Your task to perform on an android device: open app "Clock" (install if not already installed) Image 0: 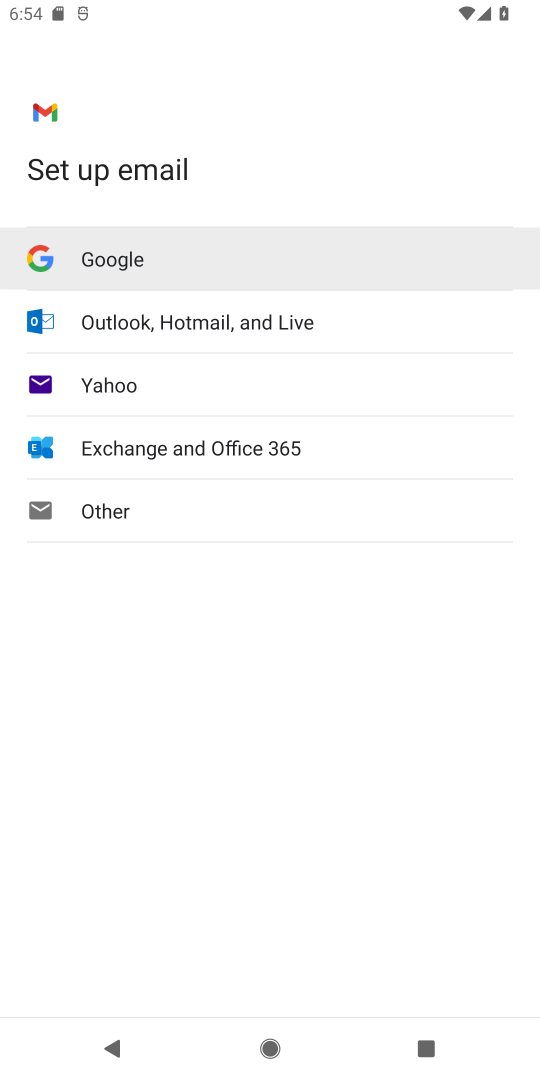
Step 0: press home button
Your task to perform on an android device: open app "Clock" (install if not already installed) Image 1: 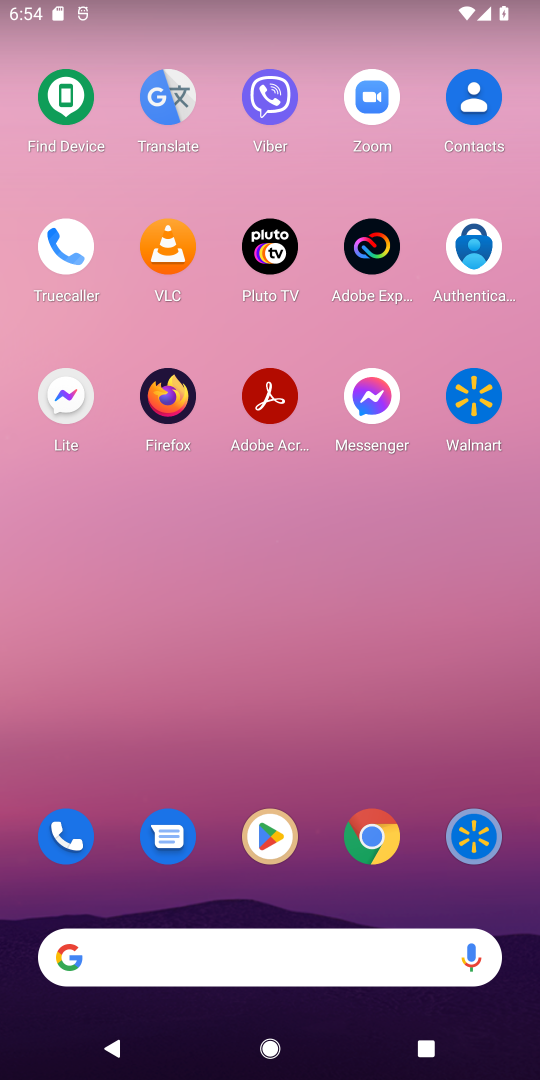
Step 1: press home button
Your task to perform on an android device: open app "Clock" (install if not already installed) Image 2: 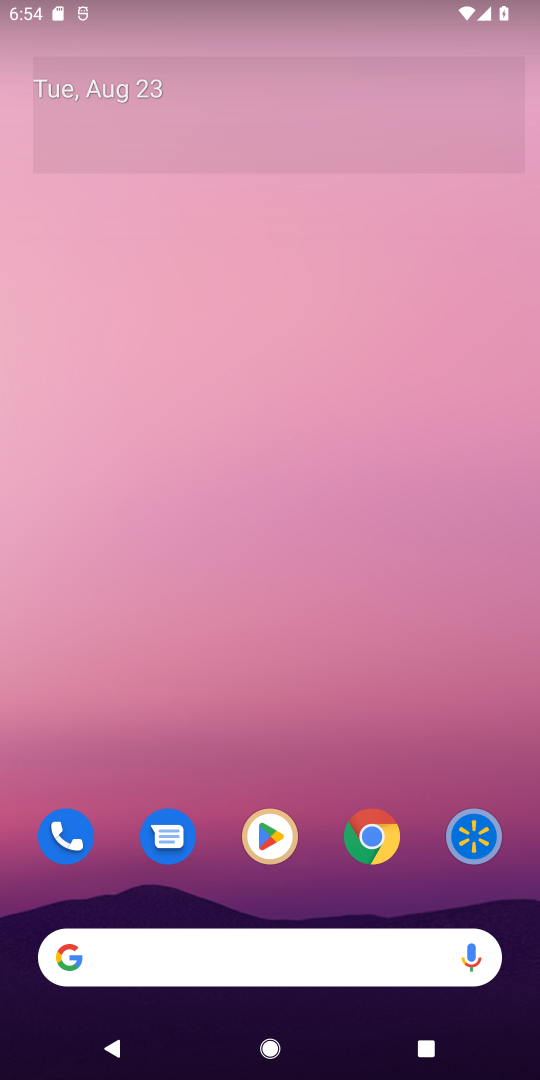
Step 2: click (274, 848)
Your task to perform on an android device: open app "Clock" (install if not already installed) Image 3: 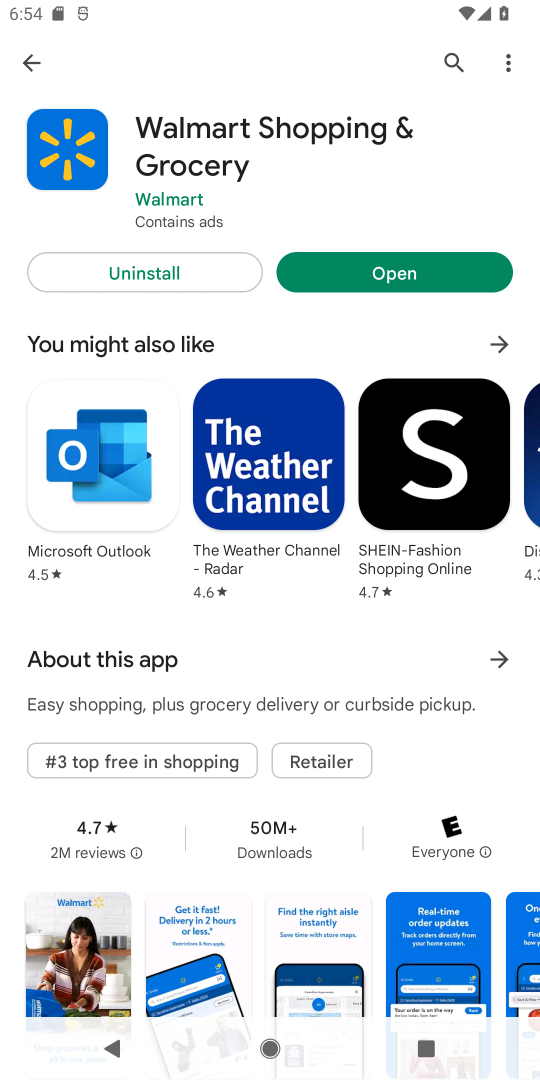
Step 3: click (452, 63)
Your task to perform on an android device: open app "Clock" (install if not already installed) Image 4: 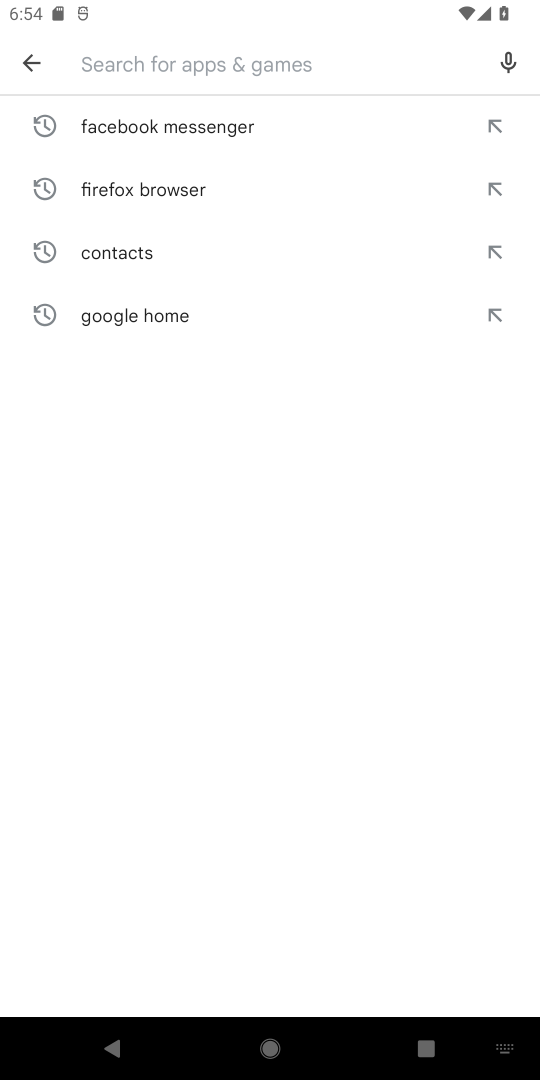
Step 4: type "Clock"
Your task to perform on an android device: open app "Clock" (install if not already installed) Image 5: 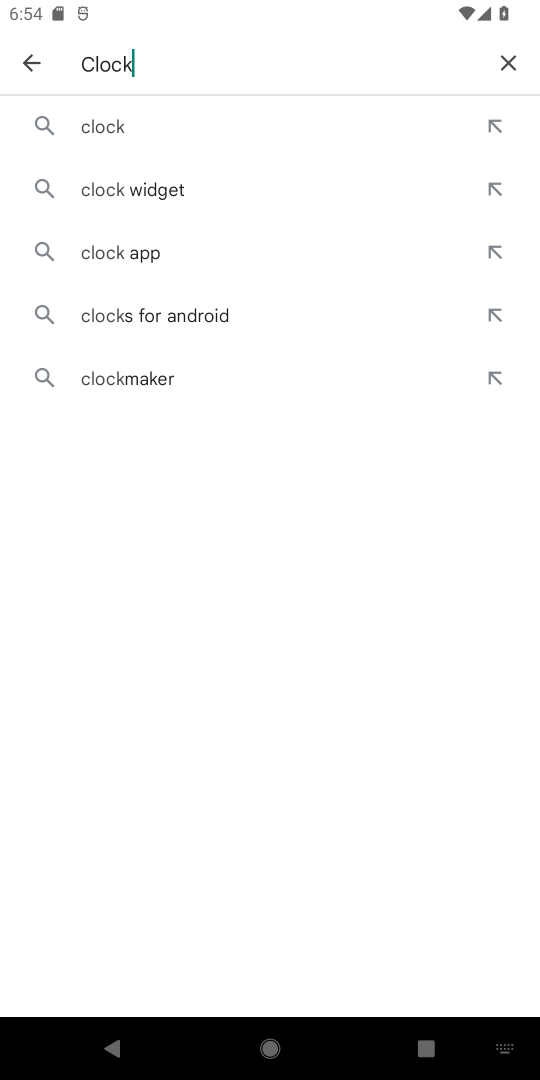
Step 5: click (181, 114)
Your task to perform on an android device: open app "Clock" (install if not already installed) Image 6: 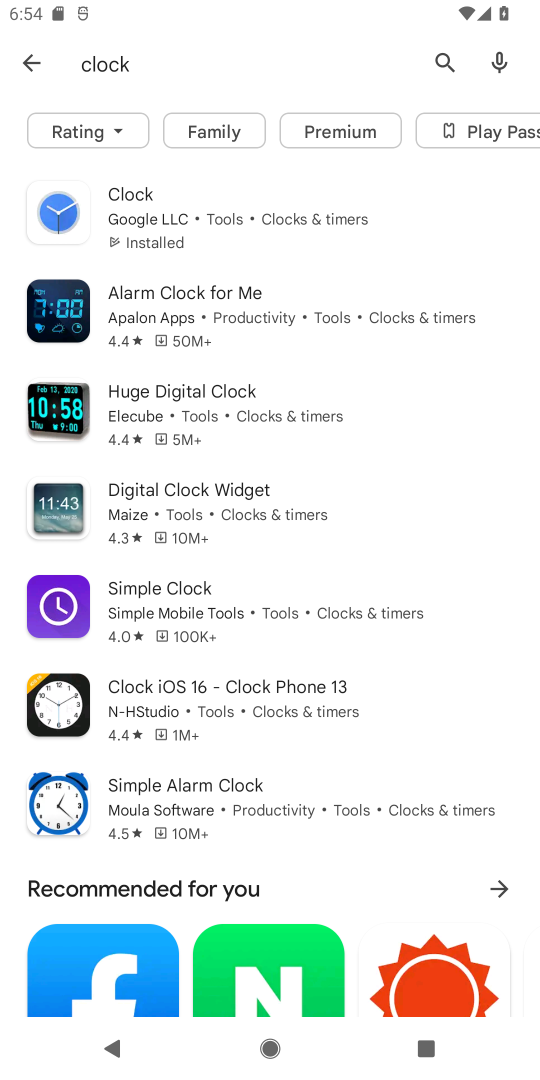
Step 6: click (242, 225)
Your task to perform on an android device: open app "Clock" (install if not already installed) Image 7: 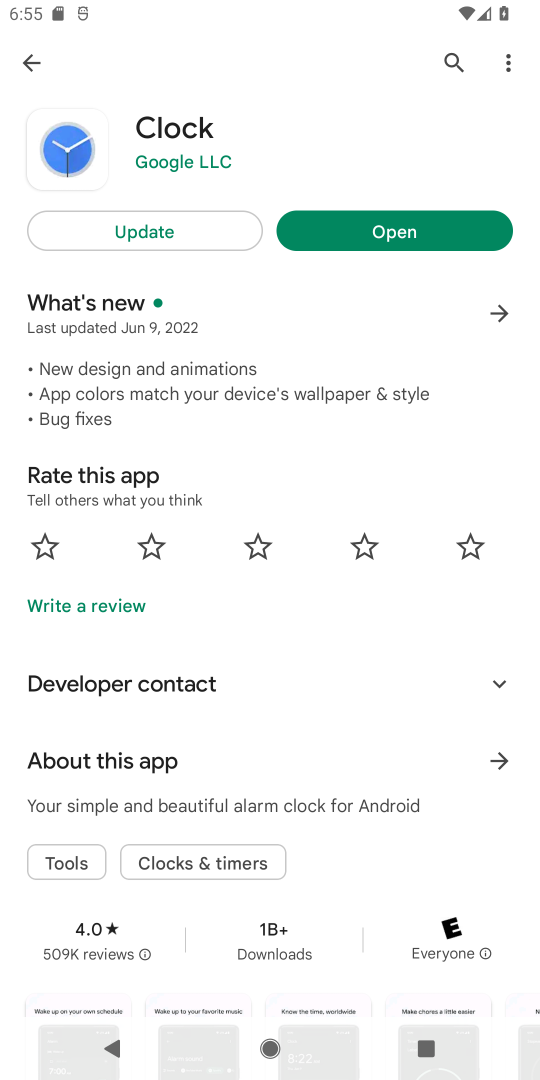
Step 7: click (401, 233)
Your task to perform on an android device: open app "Clock" (install if not already installed) Image 8: 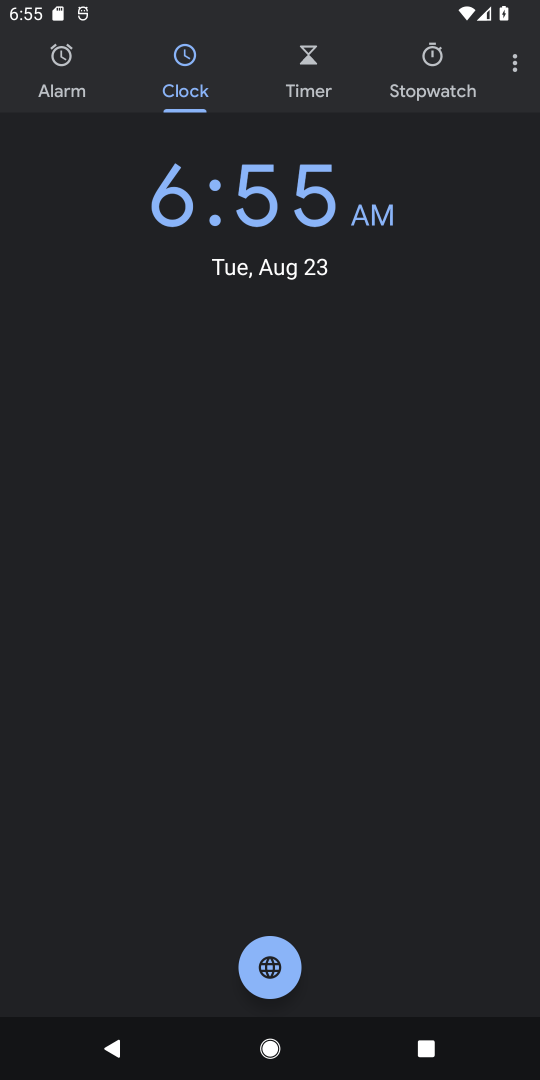
Step 8: task complete